Your task to perform on an android device: Open Wikipedia Image 0: 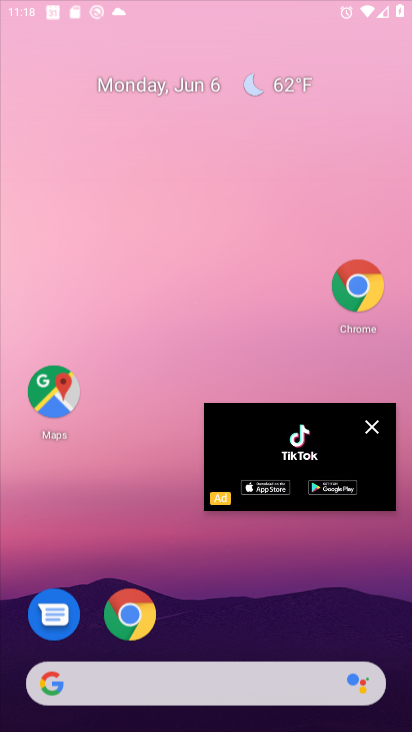
Step 0: press back button
Your task to perform on an android device: Open Wikipedia Image 1: 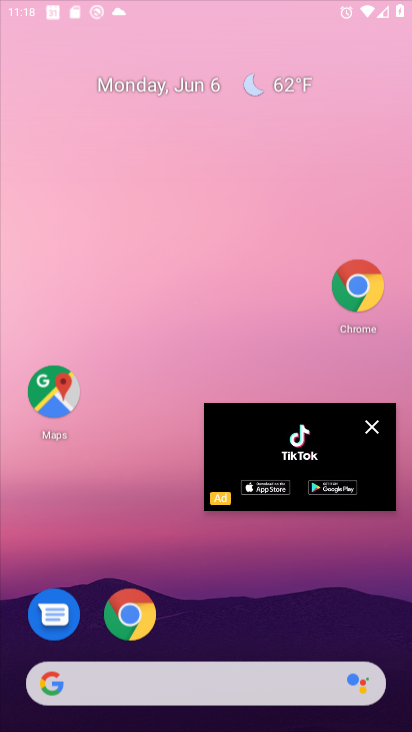
Step 1: press home button
Your task to perform on an android device: Open Wikipedia Image 2: 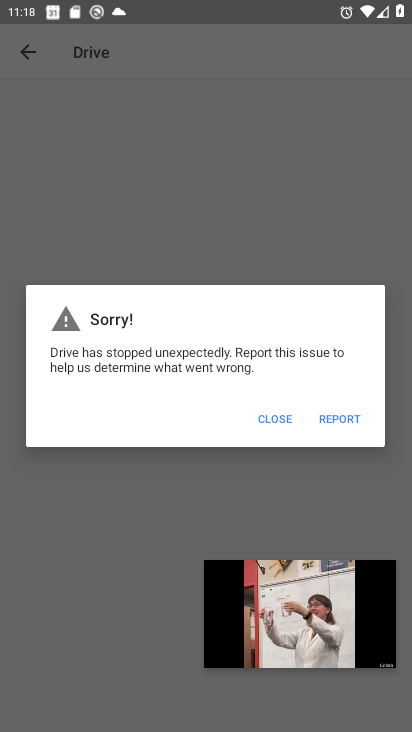
Step 2: press home button
Your task to perform on an android device: Open Wikipedia Image 3: 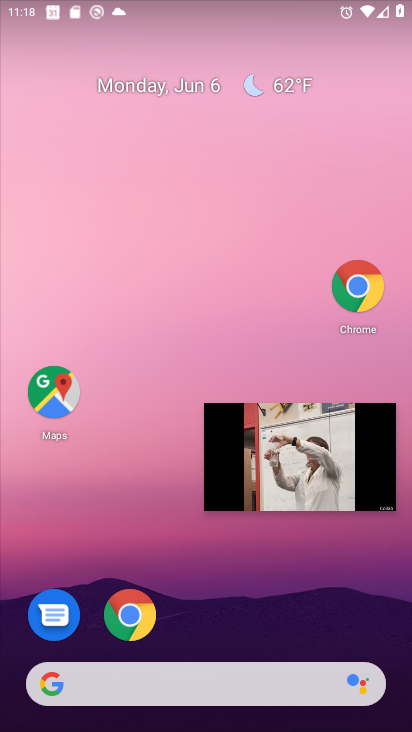
Step 3: click (277, 419)
Your task to perform on an android device: Open Wikipedia Image 4: 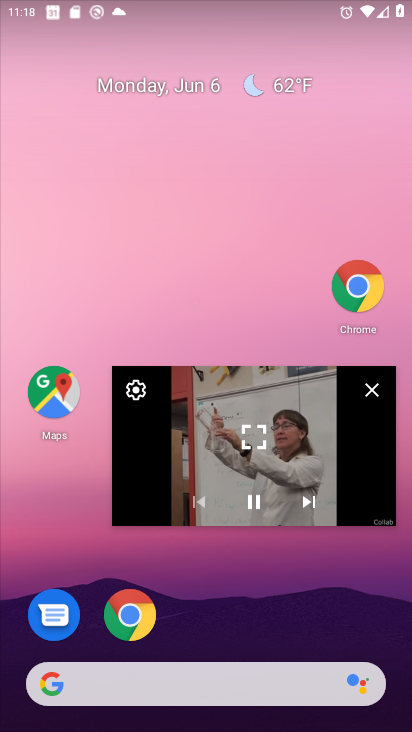
Step 4: click (370, 388)
Your task to perform on an android device: Open Wikipedia Image 5: 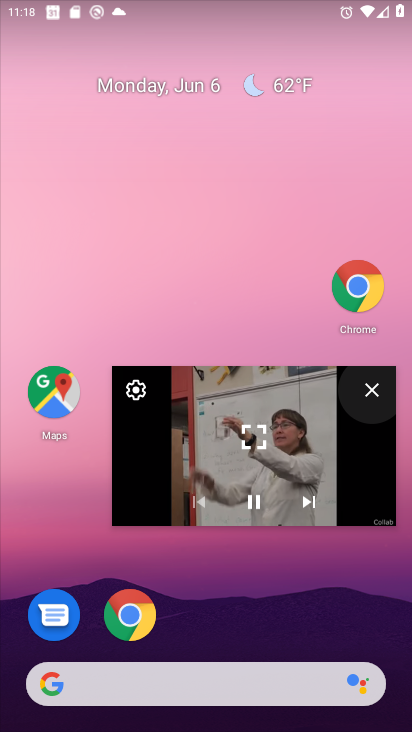
Step 5: click (377, 388)
Your task to perform on an android device: Open Wikipedia Image 6: 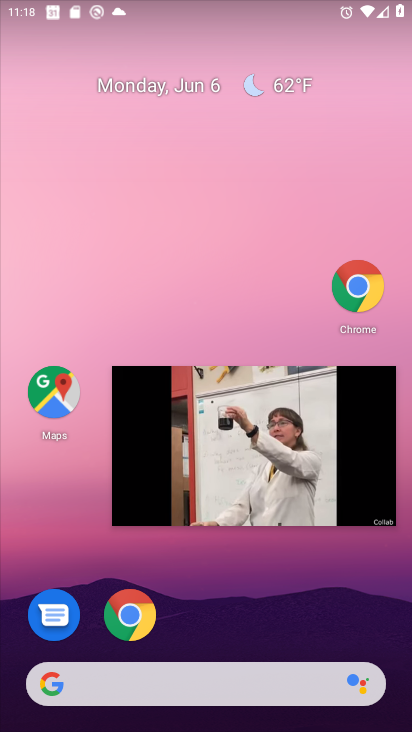
Step 6: click (377, 388)
Your task to perform on an android device: Open Wikipedia Image 7: 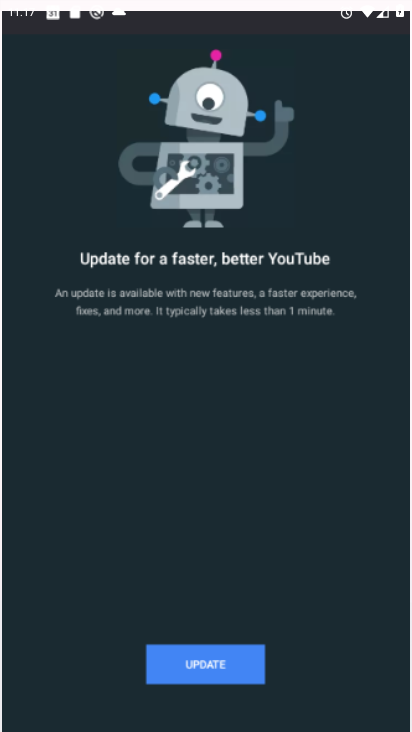
Step 7: drag from (252, 715) to (103, 149)
Your task to perform on an android device: Open Wikipedia Image 8: 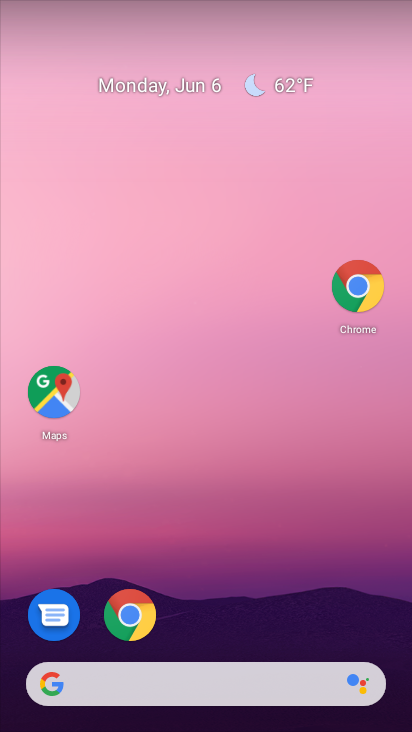
Step 8: drag from (261, 697) to (178, 74)
Your task to perform on an android device: Open Wikipedia Image 9: 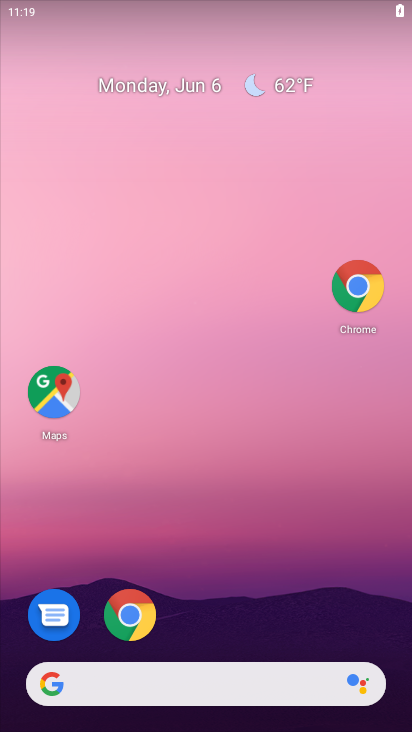
Step 9: drag from (263, 528) to (115, 62)
Your task to perform on an android device: Open Wikipedia Image 10: 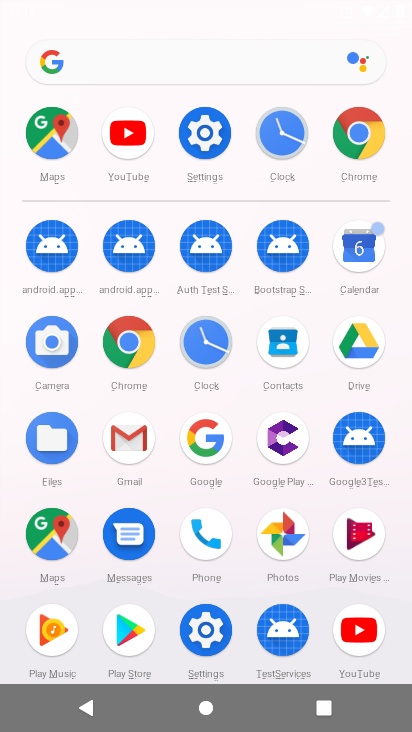
Step 10: drag from (253, 472) to (144, 42)
Your task to perform on an android device: Open Wikipedia Image 11: 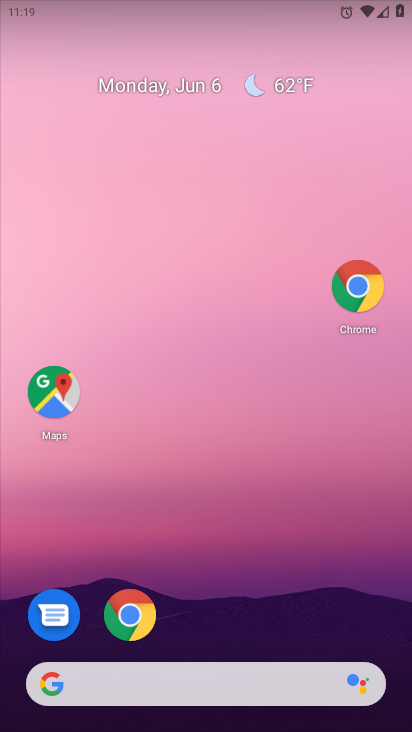
Step 11: click (343, 146)
Your task to perform on an android device: Open Wikipedia Image 12: 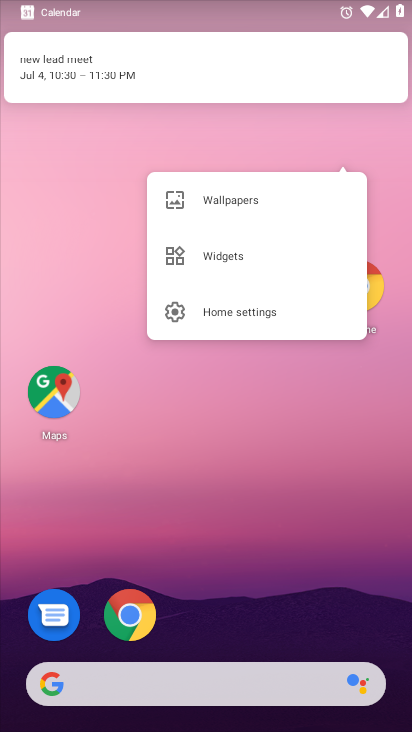
Step 12: click (220, 175)
Your task to perform on an android device: Open Wikipedia Image 13: 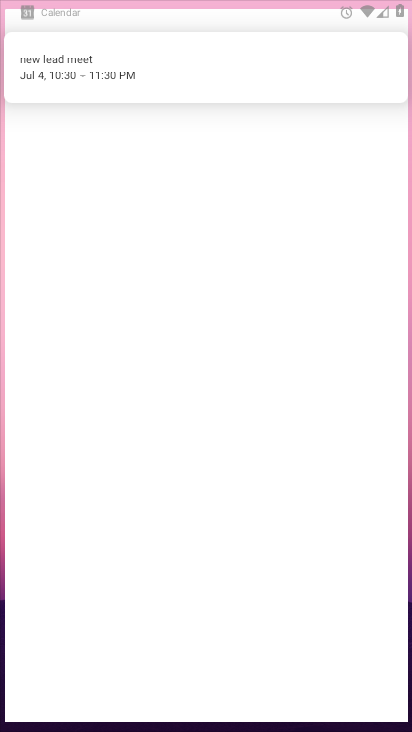
Step 13: drag from (271, 573) to (239, 172)
Your task to perform on an android device: Open Wikipedia Image 14: 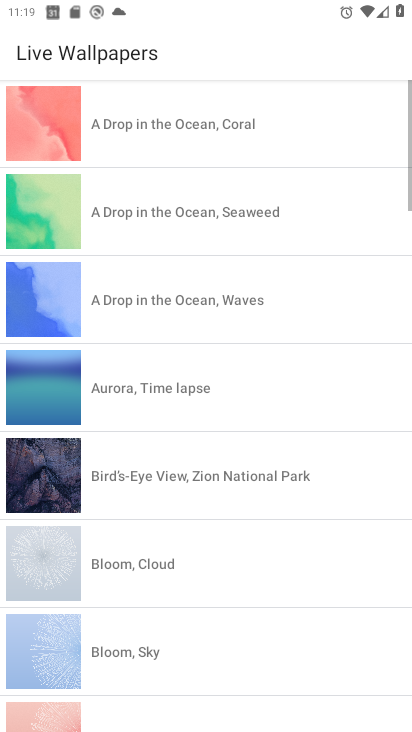
Step 14: press back button
Your task to perform on an android device: Open Wikipedia Image 15: 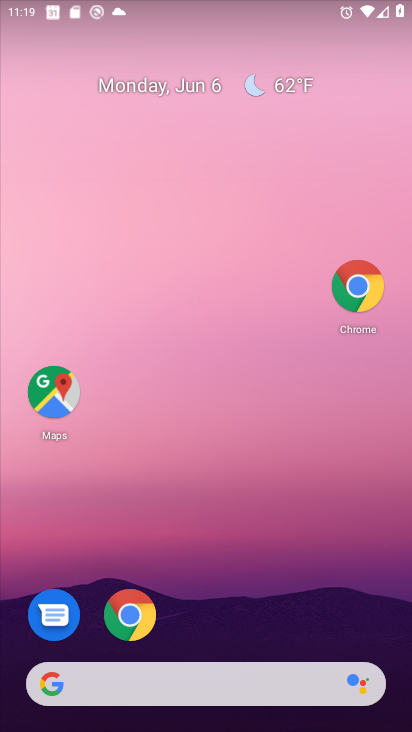
Step 15: drag from (249, 676) to (156, 156)
Your task to perform on an android device: Open Wikipedia Image 16: 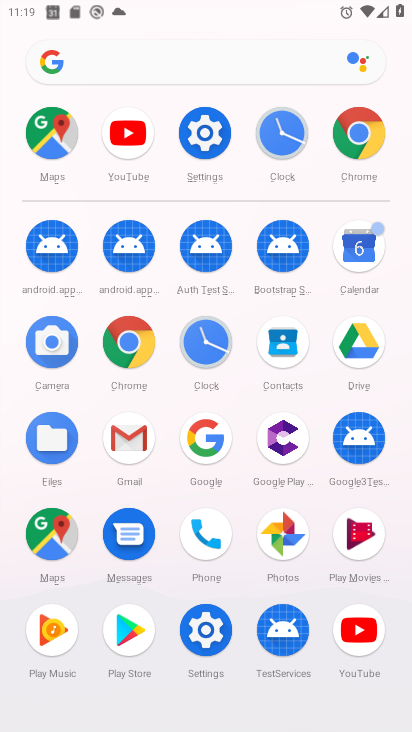
Step 16: click (350, 130)
Your task to perform on an android device: Open Wikipedia Image 17: 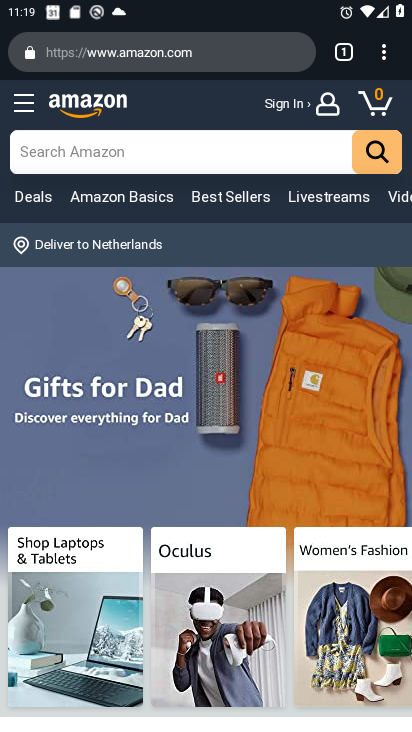
Step 17: click (384, 65)
Your task to perform on an android device: Open Wikipedia Image 18: 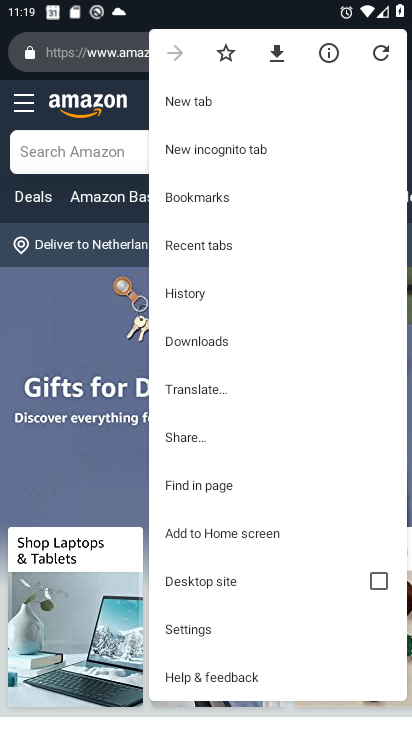
Step 18: click (181, 102)
Your task to perform on an android device: Open Wikipedia Image 19: 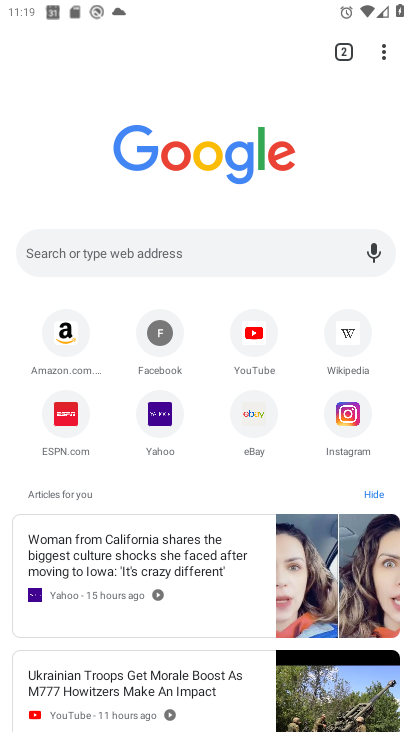
Step 19: click (341, 331)
Your task to perform on an android device: Open Wikipedia Image 20: 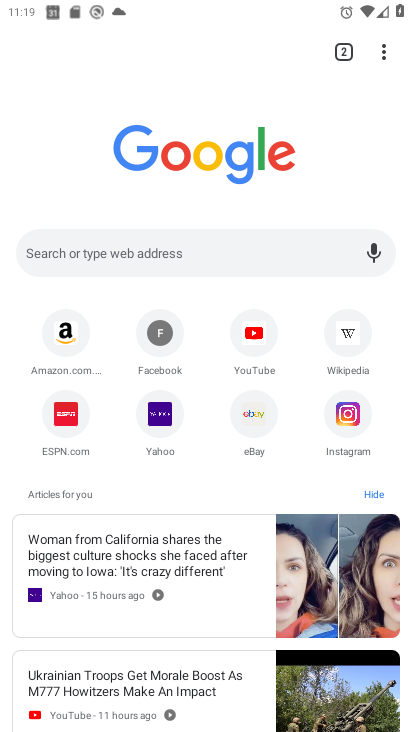
Step 20: click (341, 331)
Your task to perform on an android device: Open Wikipedia Image 21: 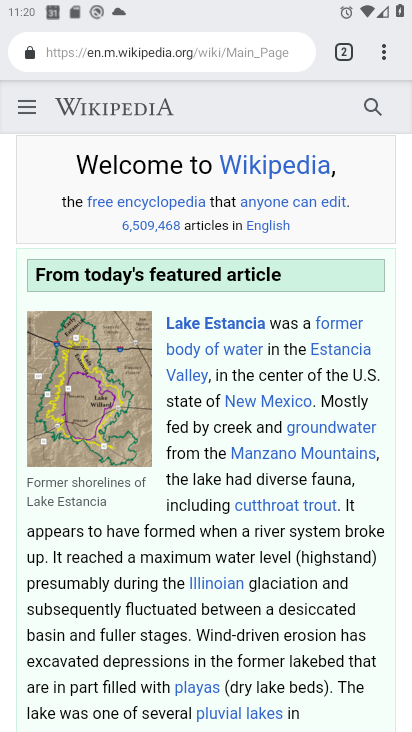
Step 21: task complete